Your task to perform on an android device: Open the Play Movies app and select the watchlist tab. Image 0: 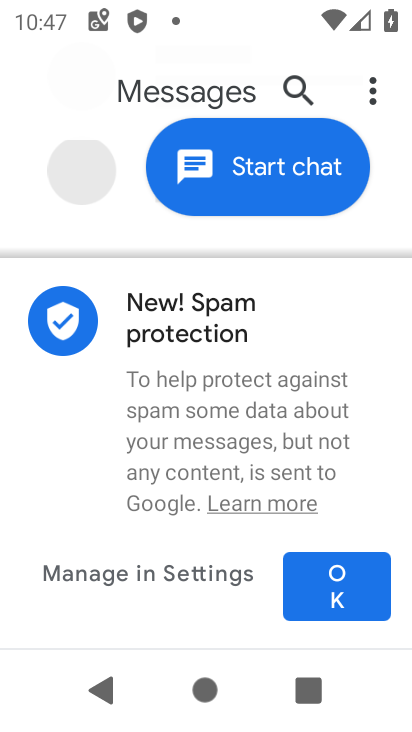
Step 0: press home button
Your task to perform on an android device: Open the Play Movies app and select the watchlist tab. Image 1: 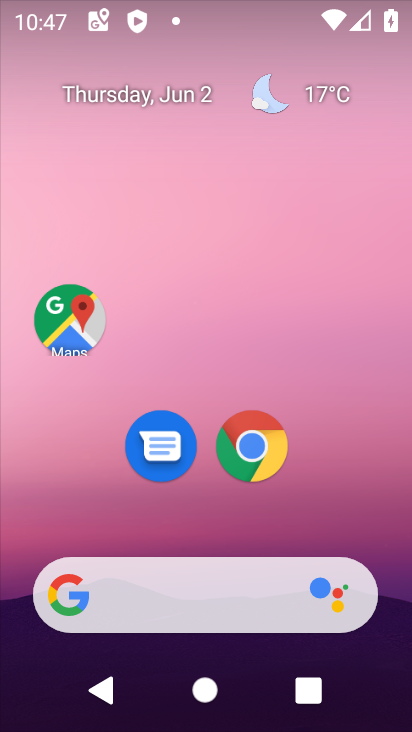
Step 1: drag from (335, 493) to (363, 95)
Your task to perform on an android device: Open the Play Movies app and select the watchlist tab. Image 2: 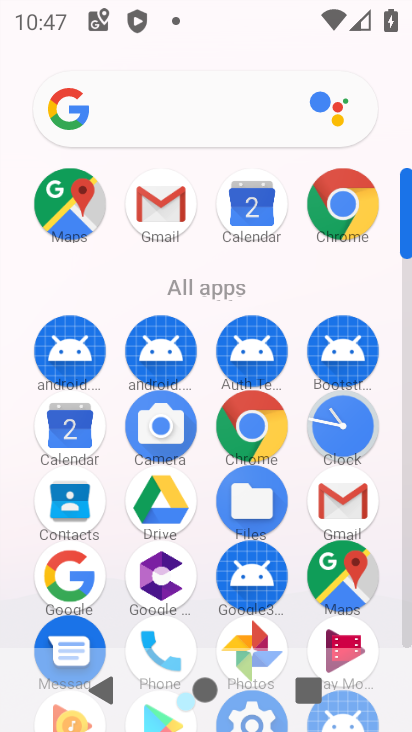
Step 2: drag from (301, 537) to (289, 200)
Your task to perform on an android device: Open the Play Movies app and select the watchlist tab. Image 3: 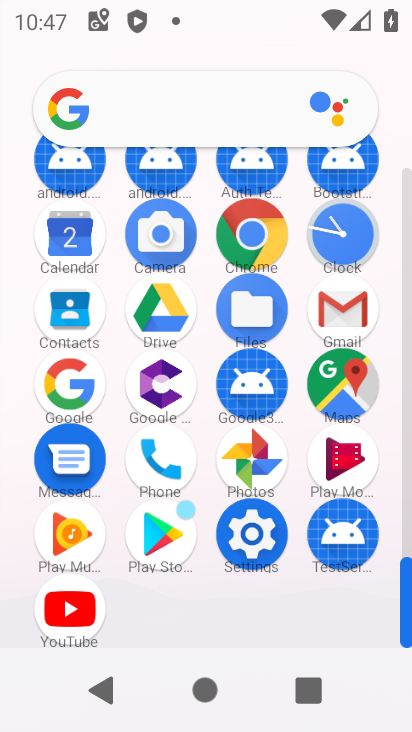
Step 3: click (341, 468)
Your task to perform on an android device: Open the Play Movies app and select the watchlist tab. Image 4: 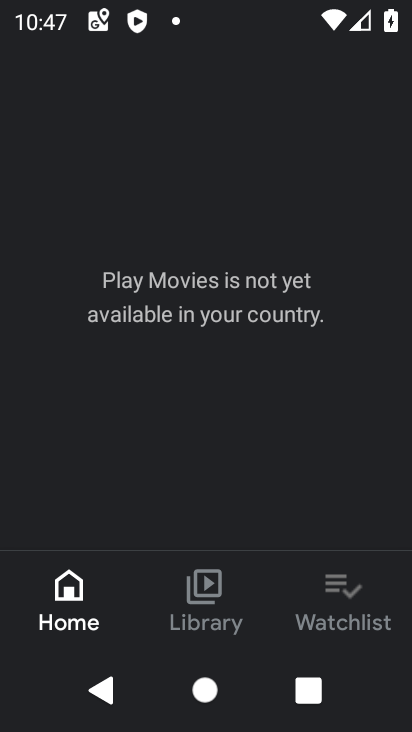
Step 4: click (340, 611)
Your task to perform on an android device: Open the Play Movies app and select the watchlist tab. Image 5: 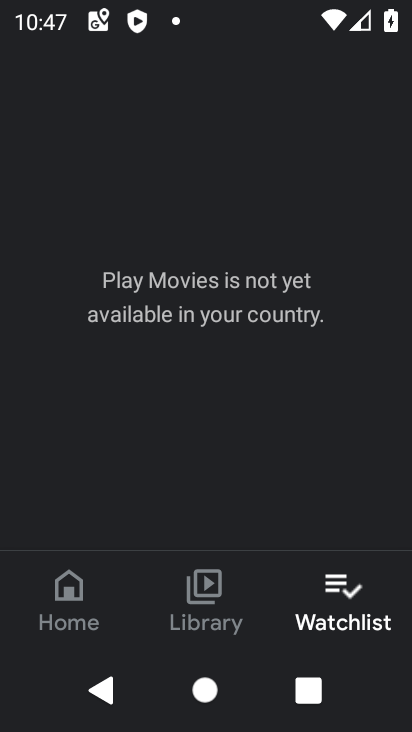
Step 5: task complete